Your task to perform on an android device: Open Reddit.com Image 0: 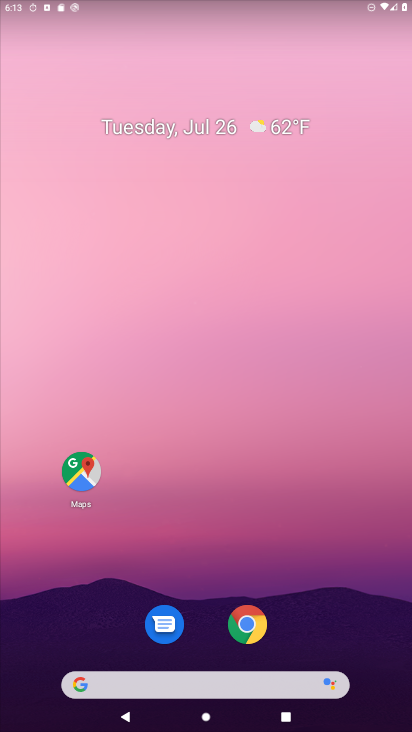
Step 0: drag from (231, 716) to (84, 1)
Your task to perform on an android device: Open Reddit.com Image 1: 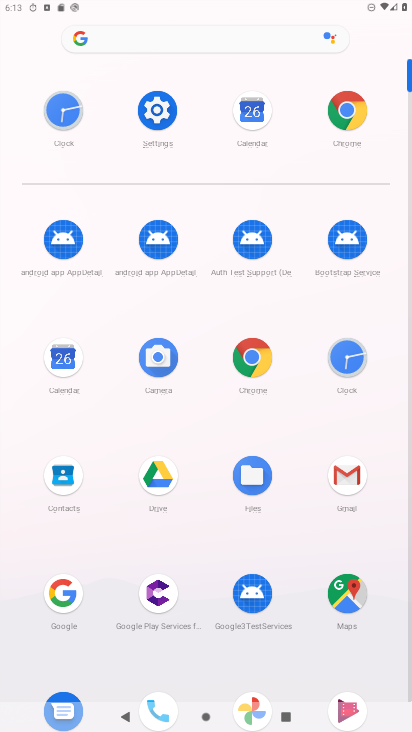
Step 1: click (258, 353)
Your task to perform on an android device: Open Reddit.com Image 2: 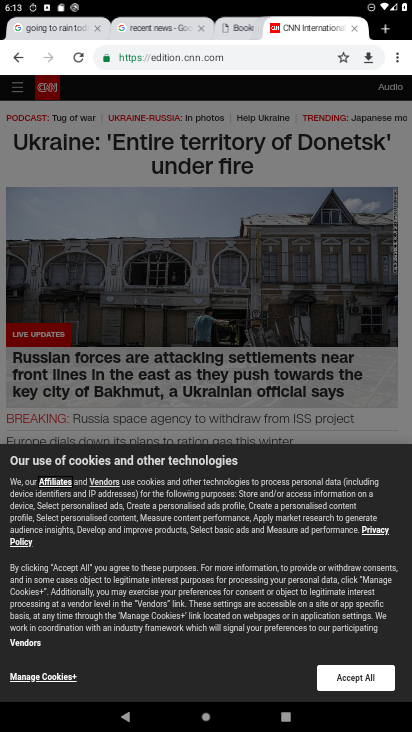
Step 2: click (242, 49)
Your task to perform on an android device: Open Reddit.com Image 3: 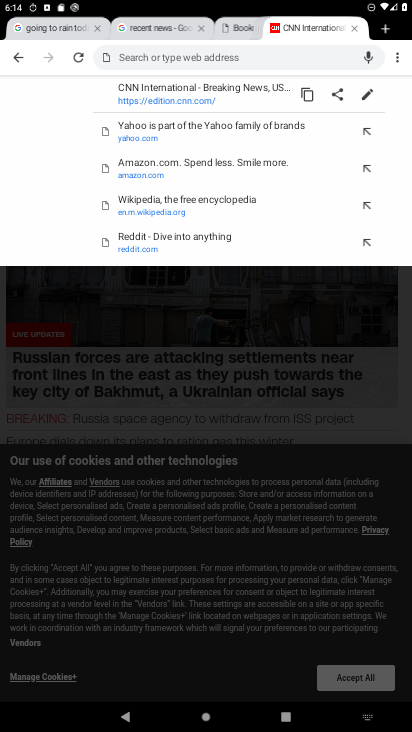
Step 3: type "reddit.com"
Your task to perform on an android device: Open Reddit.com Image 4: 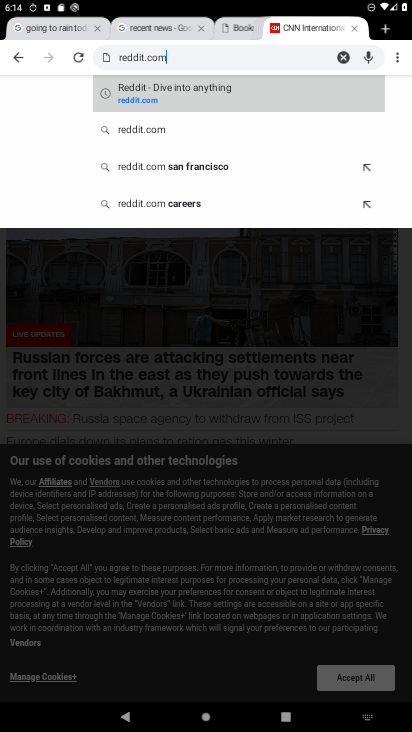
Step 4: click (219, 101)
Your task to perform on an android device: Open Reddit.com Image 5: 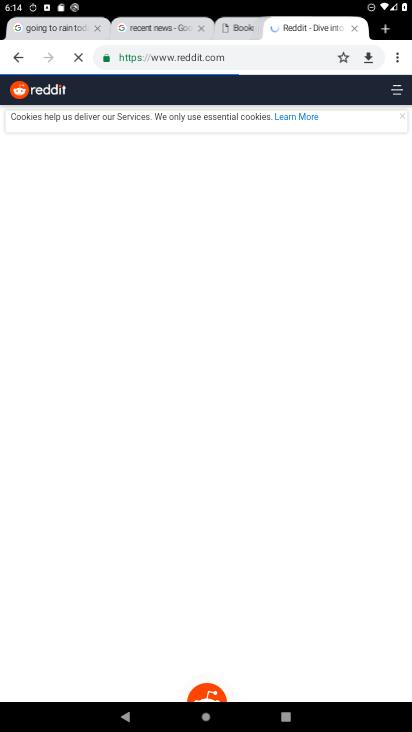
Step 5: task complete